Your task to perform on an android device: Go to network settings Image 0: 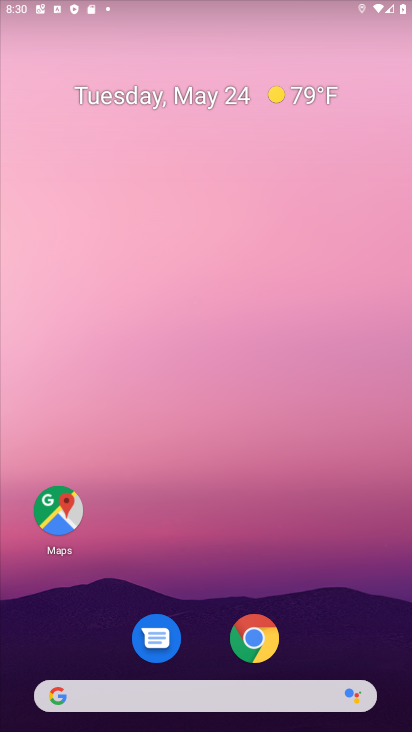
Step 0: drag from (262, 728) to (240, 6)
Your task to perform on an android device: Go to network settings Image 1: 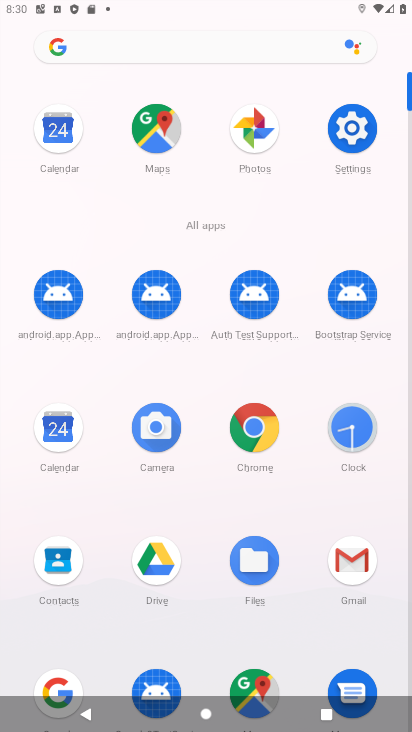
Step 1: click (362, 123)
Your task to perform on an android device: Go to network settings Image 2: 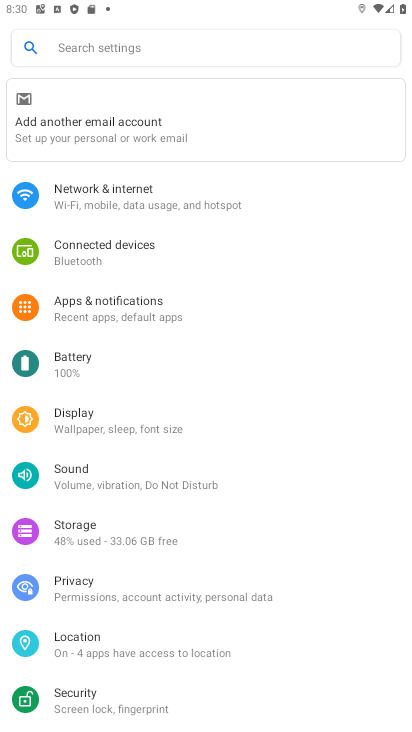
Step 2: click (205, 188)
Your task to perform on an android device: Go to network settings Image 3: 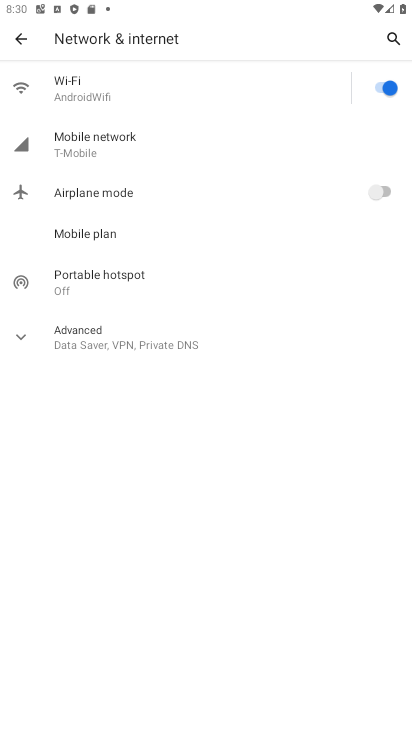
Step 3: task complete